Your task to perform on an android device: Open the stopwatch Image 0: 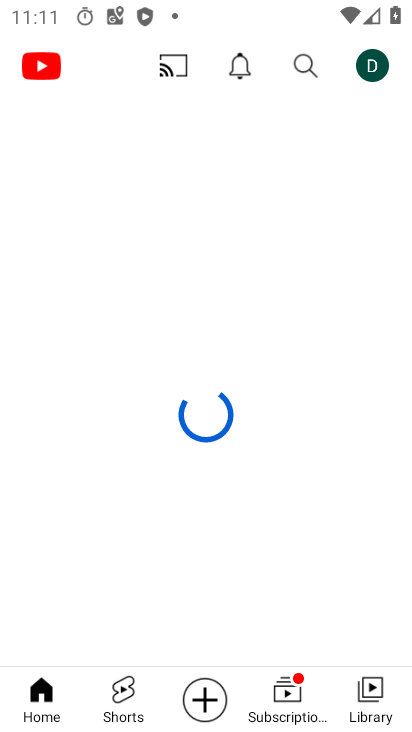
Step 0: press home button
Your task to perform on an android device: Open the stopwatch Image 1: 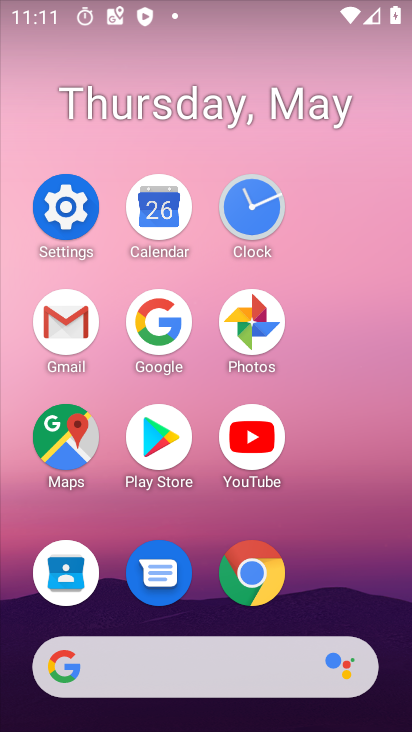
Step 1: click (263, 203)
Your task to perform on an android device: Open the stopwatch Image 2: 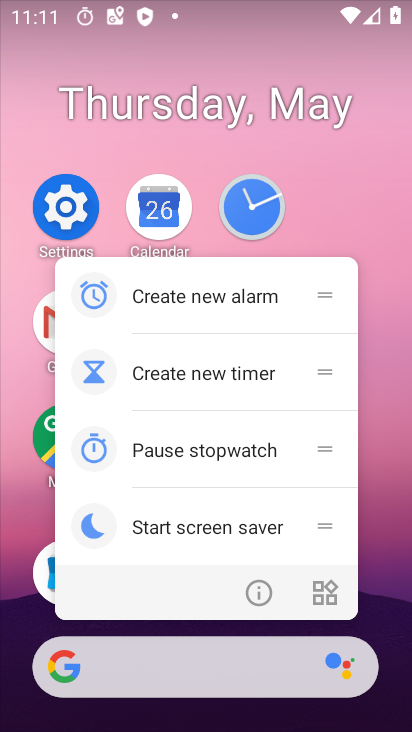
Step 2: click (263, 203)
Your task to perform on an android device: Open the stopwatch Image 3: 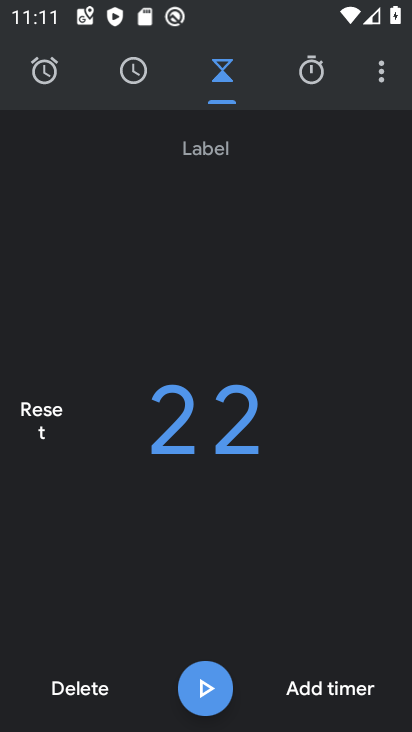
Step 3: click (301, 78)
Your task to perform on an android device: Open the stopwatch Image 4: 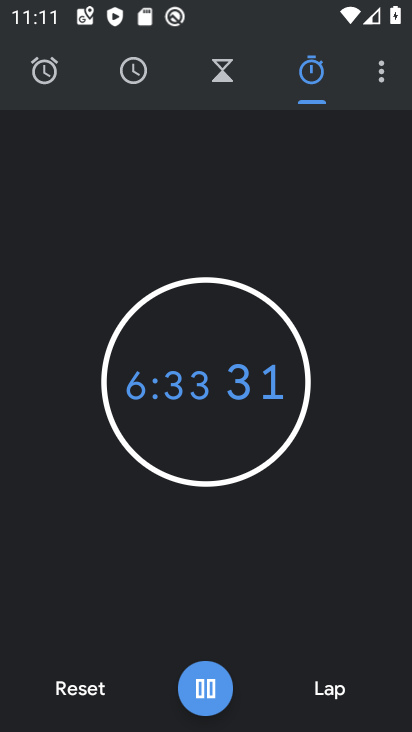
Step 4: task complete